Your task to perform on an android device: Open calendar and show me the first week of next month Image 0: 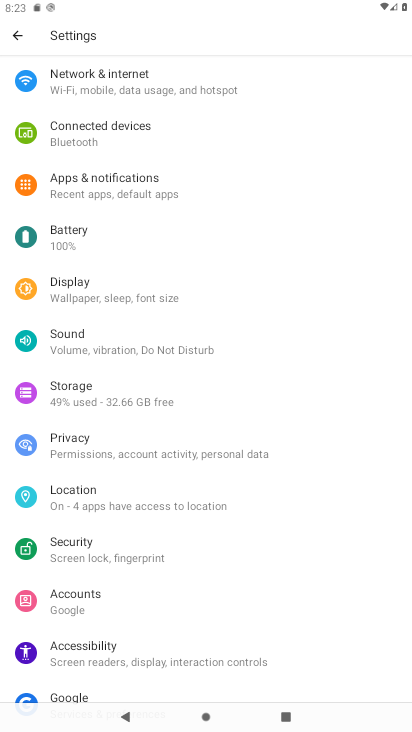
Step 0: press home button
Your task to perform on an android device: Open calendar and show me the first week of next month Image 1: 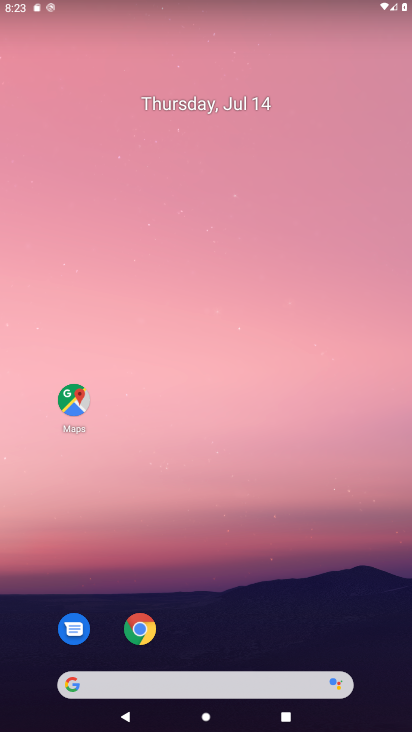
Step 1: drag from (222, 646) to (187, 72)
Your task to perform on an android device: Open calendar and show me the first week of next month Image 2: 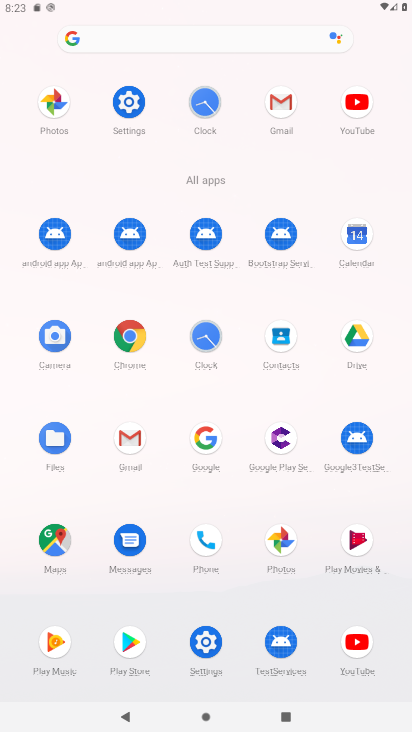
Step 2: click (362, 244)
Your task to perform on an android device: Open calendar and show me the first week of next month Image 3: 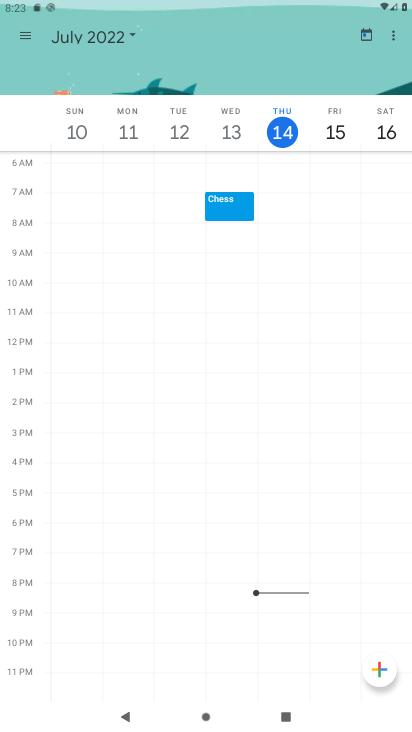
Step 3: task complete